Your task to perform on an android device: turn on bluetooth scan Image 0: 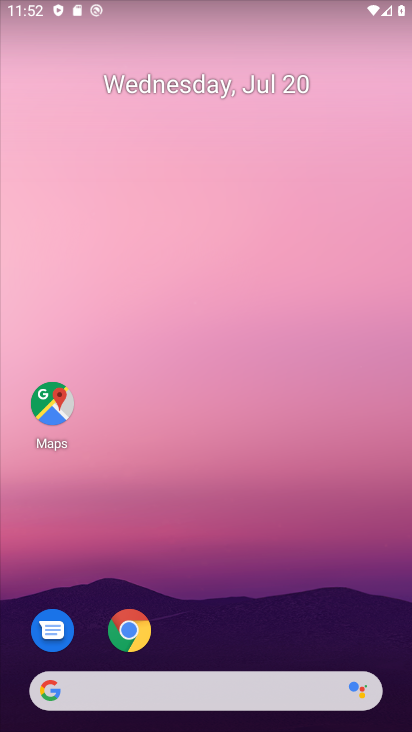
Step 0: press home button
Your task to perform on an android device: turn on bluetooth scan Image 1: 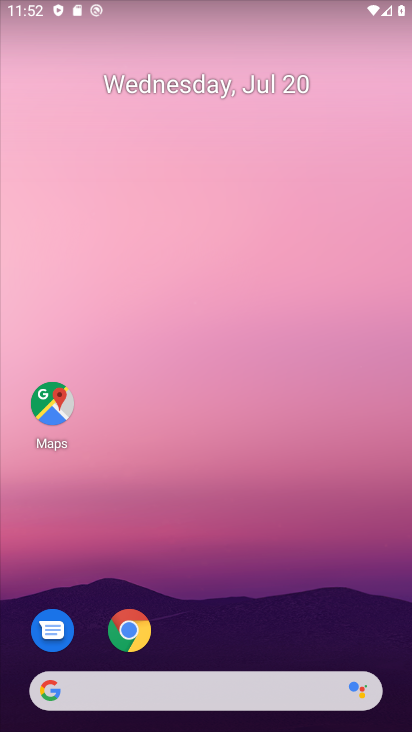
Step 1: drag from (214, 638) to (241, 210)
Your task to perform on an android device: turn on bluetooth scan Image 2: 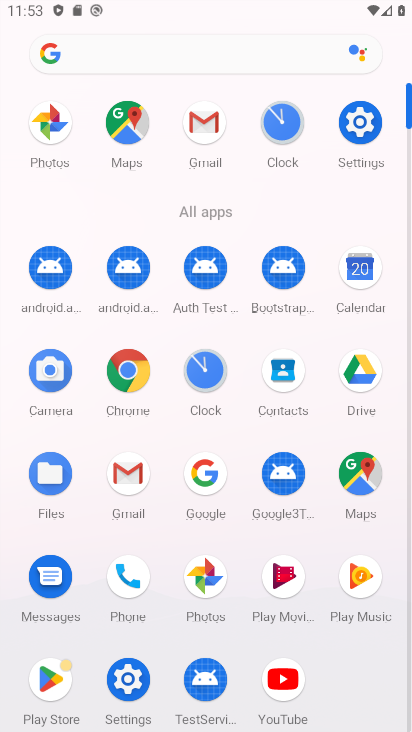
Step 2: click (359, 119)
Your task to perform on an android device: turn on bluetooth scan Image 3: 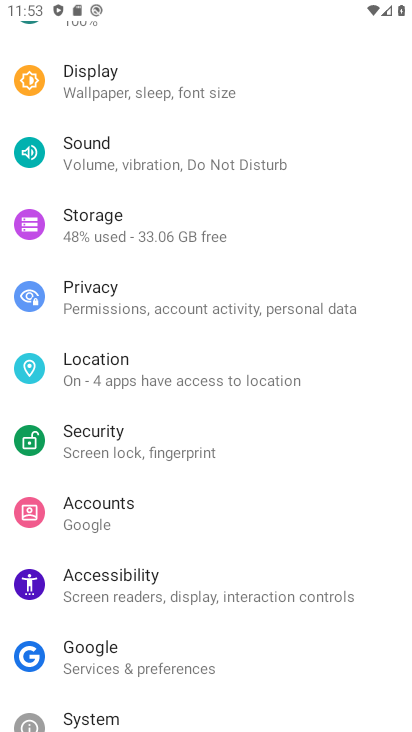
Step 3: click (146, 368)
Your task to perform on an android device: turn on bluetooth scan Image 4: 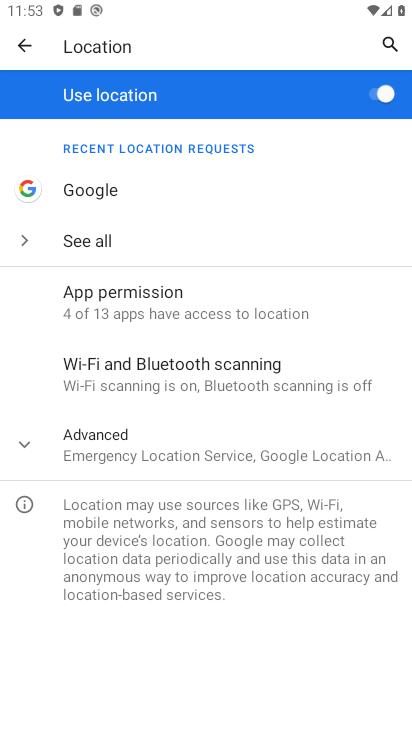
Step 4: click (133, 368)
Your task to perform on an android device: turn on bluetooth scan Image 5: 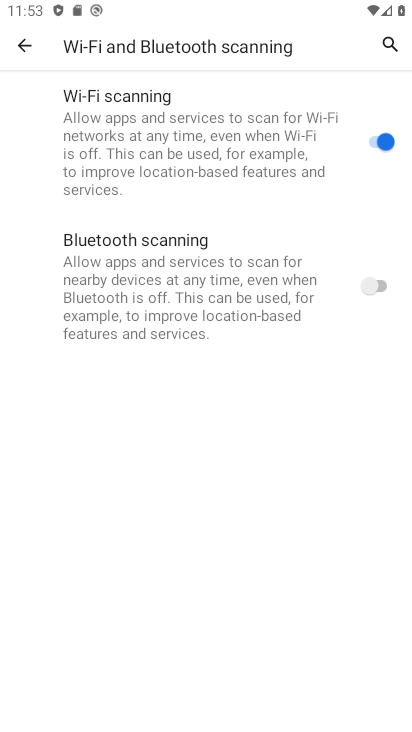
Step 5: click (373, 286)
Your task to perform on an android device: turn on bluetooth scan Image 6: 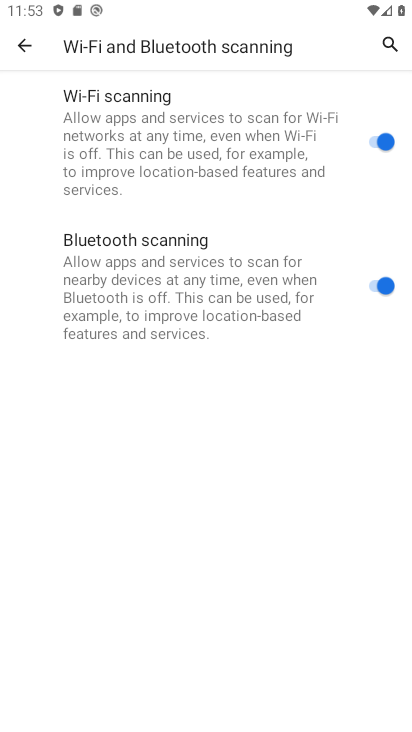
Step 6: task complete